Your task to perform on an android device: Go to battery settings Image 0: 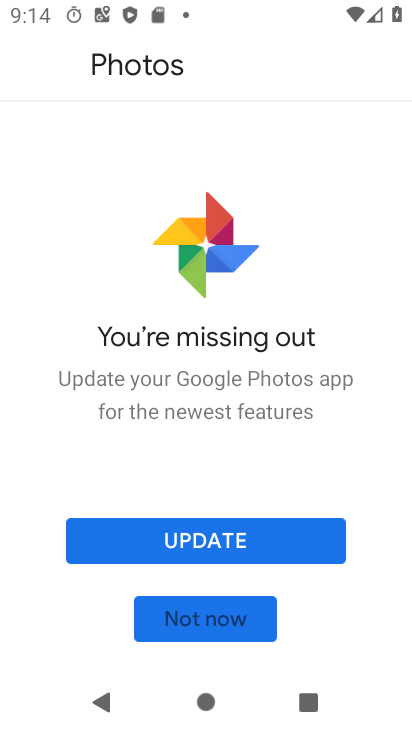
Step 0: press home button
Your task to perform on an android device: Go to battery settings Image 1: 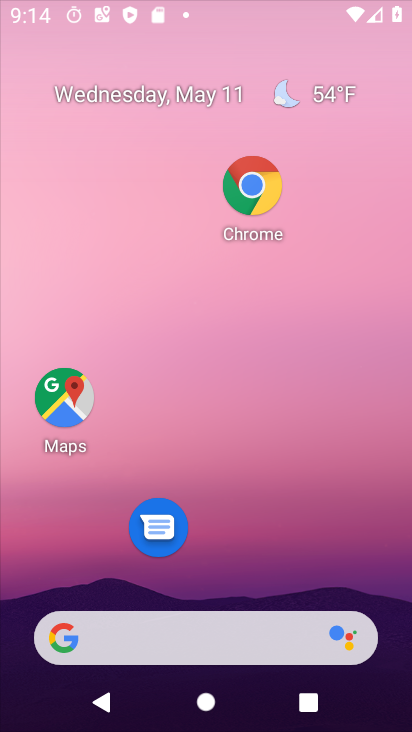
Step 1: drag from (252, 553) to (223, 32)
Your task to perform on an android device: Go to battery settings Image 2: 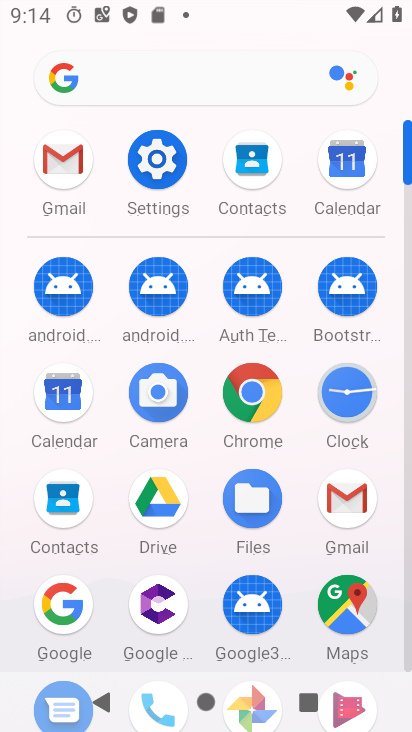
Step 2: click (163, 164)
Your task to perform on an android device: Go to battery settings Image 3: 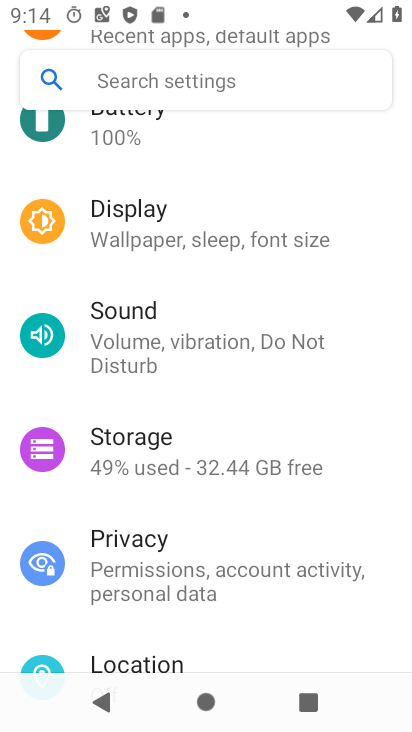
Step 3: drag from (182, 560) to (221, 623)
Your task to perform on an android device: Go to battery settings Image 4: 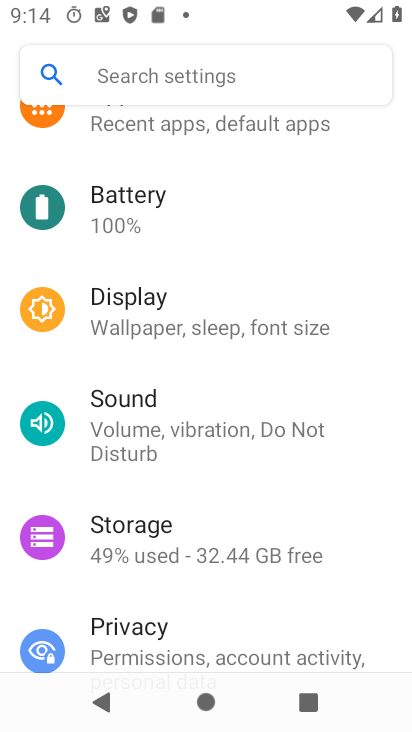
Step 4: click (163, 217)
Your task to perform on an android device: Go to battery settings Image 5: 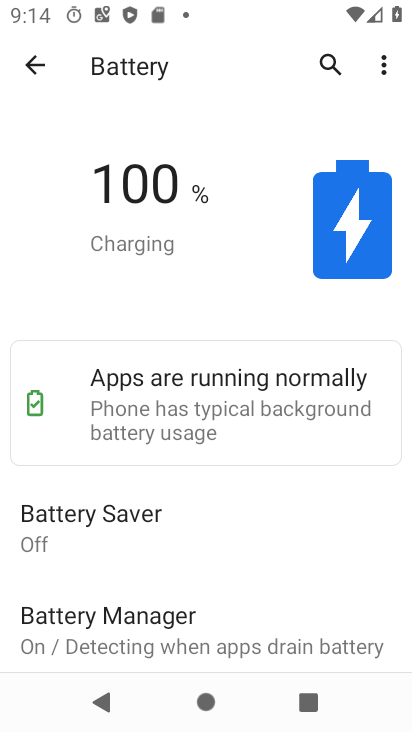
Step 5: task complete